Your task to perform on an android device: change notifications settings Image 0: 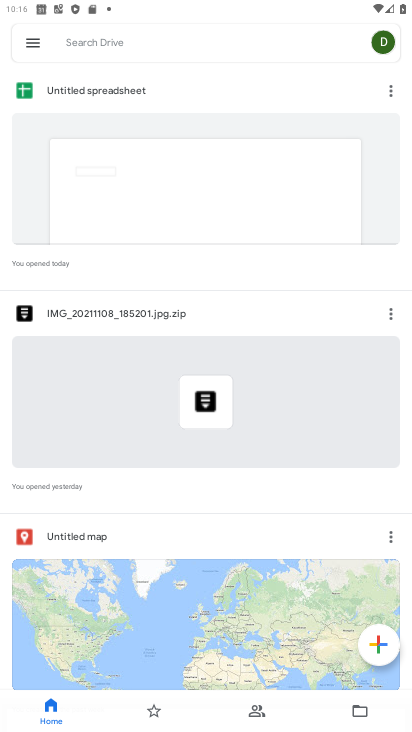
Step 0: press home button
Your task to perform on an android device: change notifications settings Image 1: 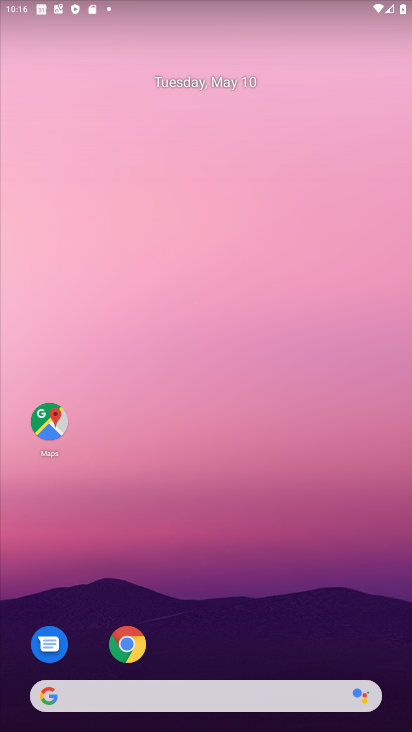
Step 1: drag from (245, 600) to (271, 373)
Your task to perform on an android device: change notifications settings Image 2: 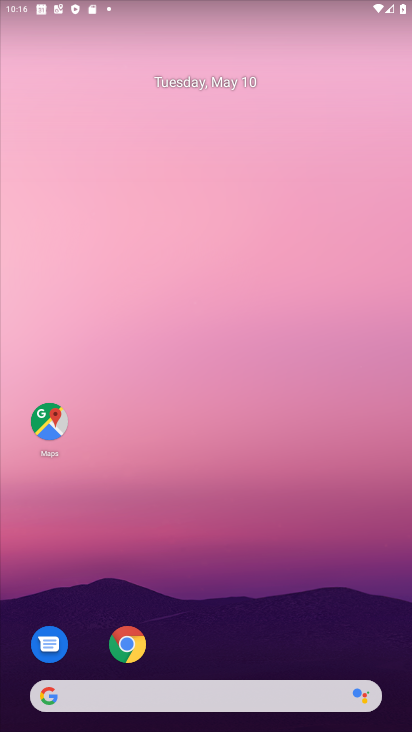
Step 2: drag from (293, 138) to (303, 88)
Your task to perform on an android device: change notifications settings Image 3: 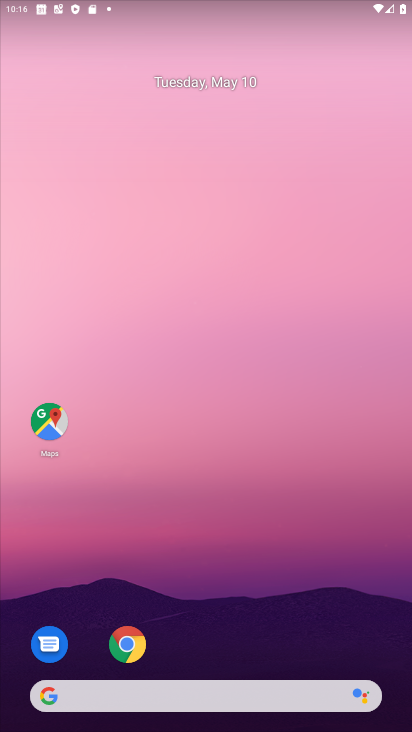
Step 3: drag from (289, 667) to (301, 88)
Your task to perform on an android device: change notifications settings Image 4: 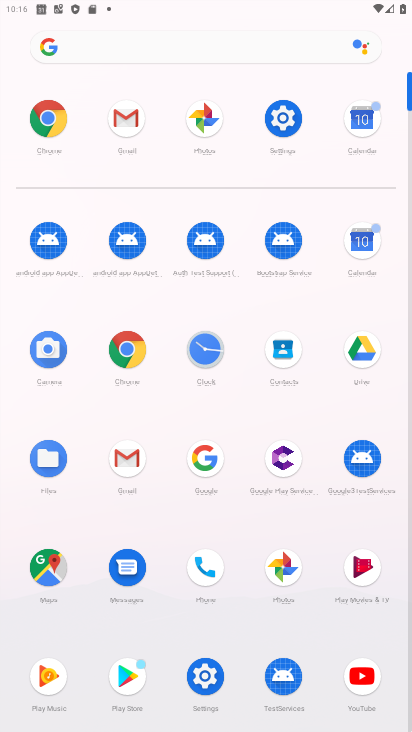
Step 4: click (285, 125)
Your task to perform on an android device: change notifications settings Image 5: 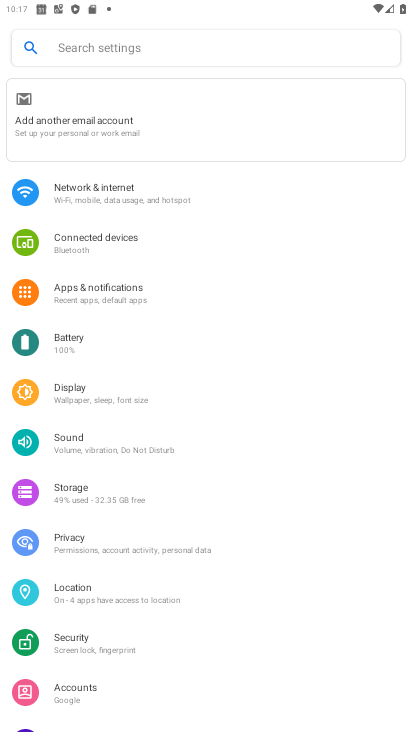
Step 5: click (197, 282)
Your task to perform on an android device: change notifications settings Image 6: 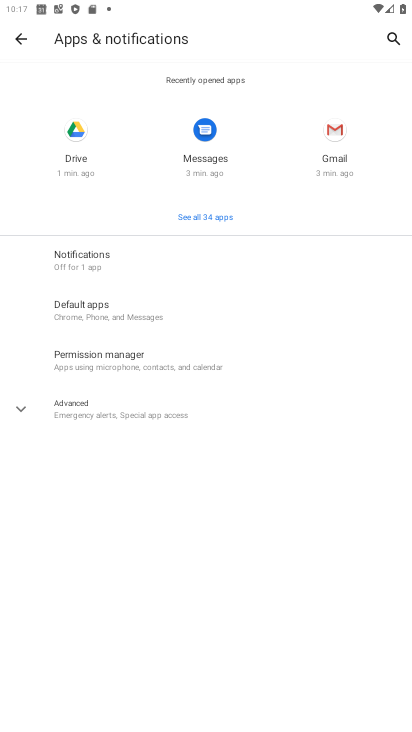
Step 6: click (213, 264)
Your task to perform on an android device: change notifications settings Image 7: 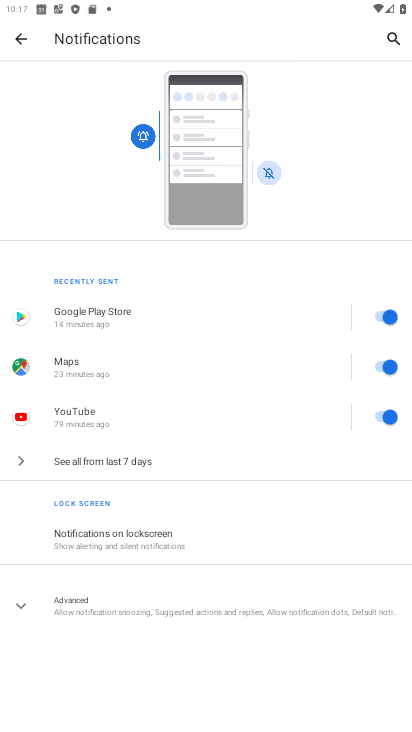
Step 7: click (381, 315)
Your task to perform on an android device: change notifications settings Image 8: 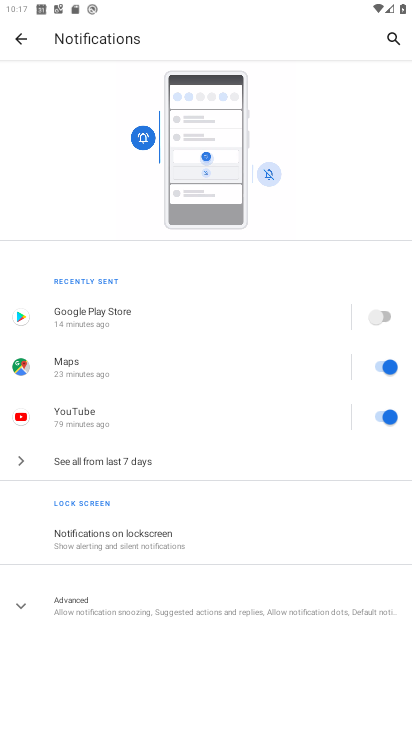
Step 8: task complete